Your task to perform on an android device: check storage Image 0: 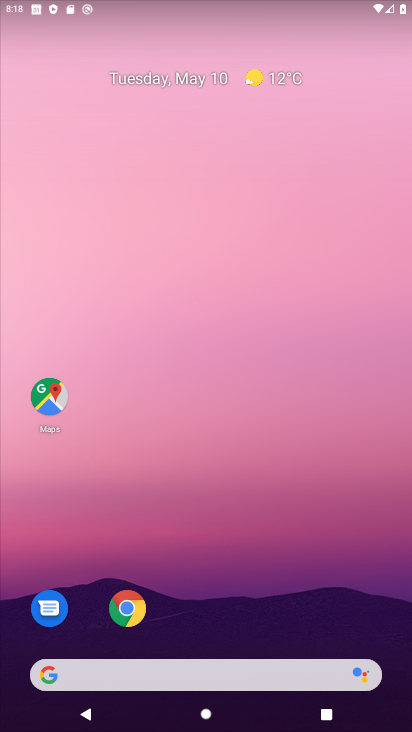
Step 0: drag from (230, 665) to (225, 178)
Your task to perform on an android device: check storage Image 1: 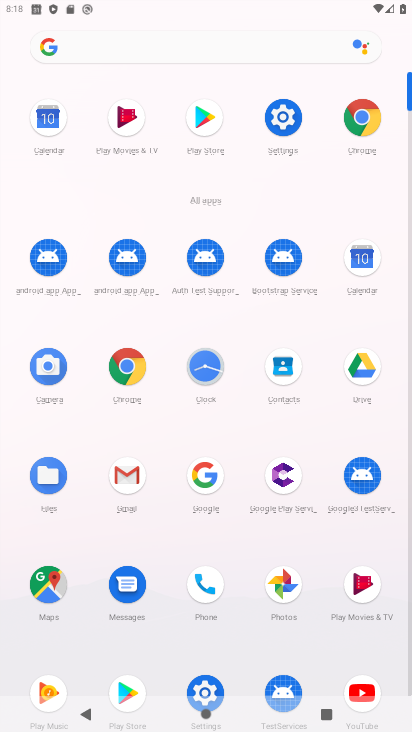
Step 1: click (292, 123)
Your task to perform on an android device: check storage Image 2: 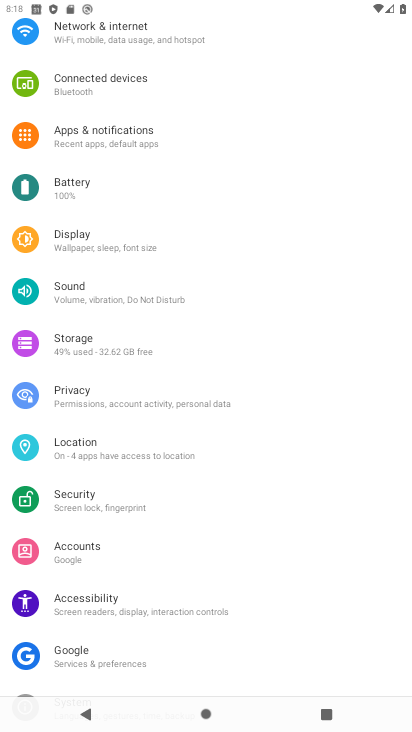
Step 2: click (102, 350)
Your task to perform on an android device: check storage Image 3: 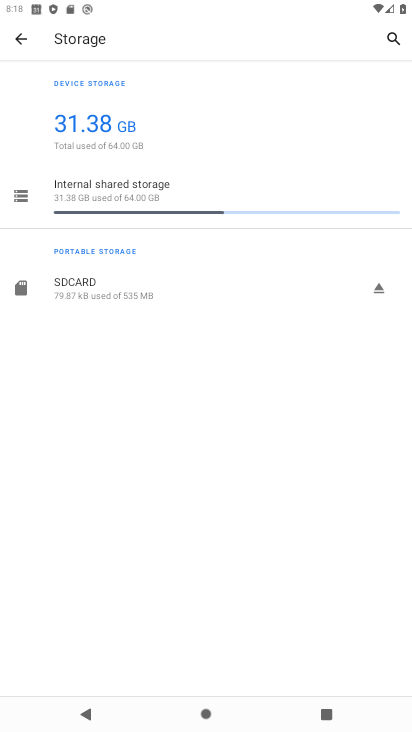
Step 3: click (150, 202)
Your task to perform on an android device: check storage Image 4: 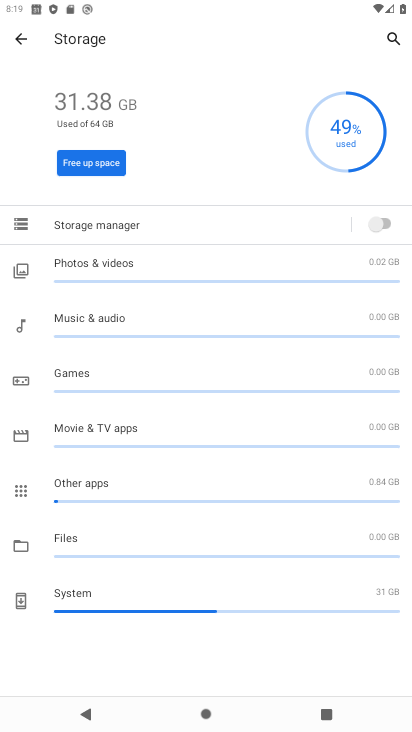
Step 4: task complete